Your task to perform on an android device: Open Chrome and go to settings Image 0: 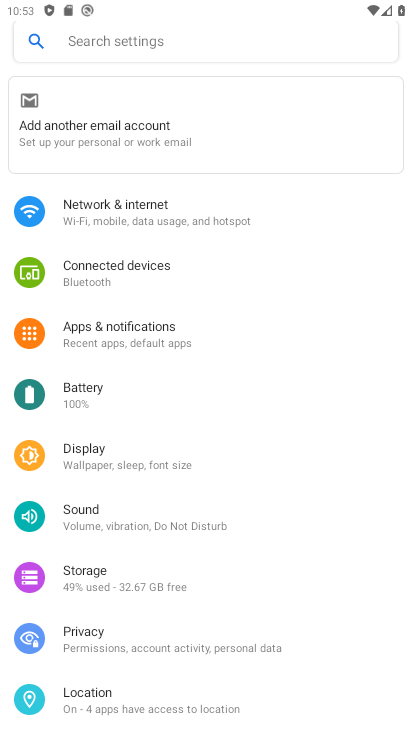
Step 0: press home button
Your task to perform on an android device: Open Chrome and go to settings Image 1: 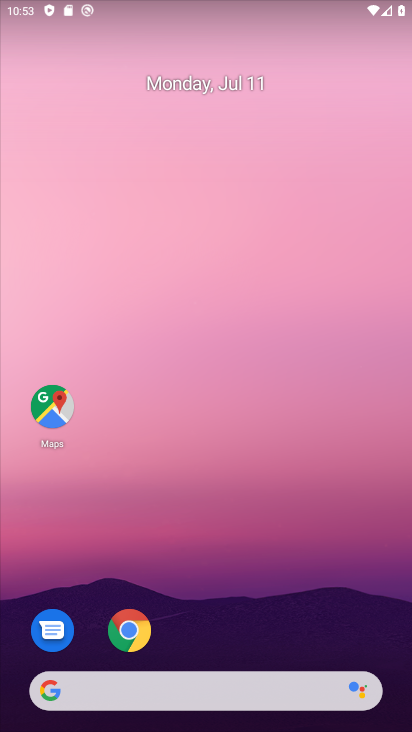
Step 1: click (126, 630)
Your task to perform on an android device: Open Chrome and go to settings Image 2: 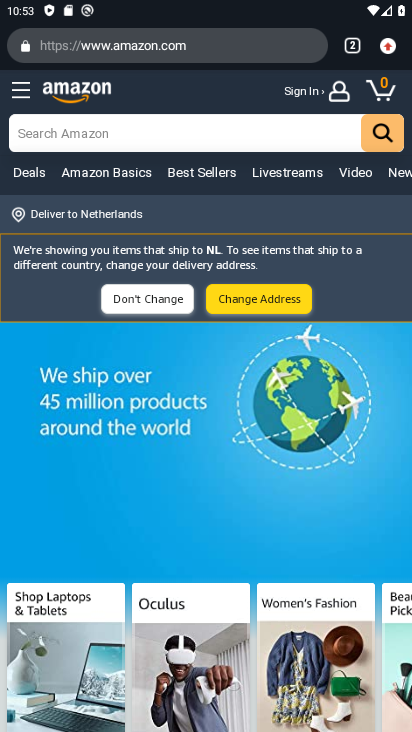
Step 2: click (392, 54)
Your task to perform on an android device: Open Chrome and go to settings Image 3: 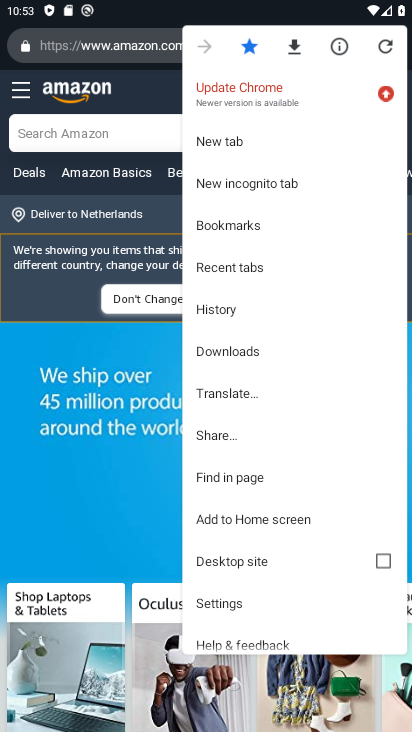
Step 3: click (294, 609)
Your task to perform on an android device: Open Chrome and go to settings Image 4: 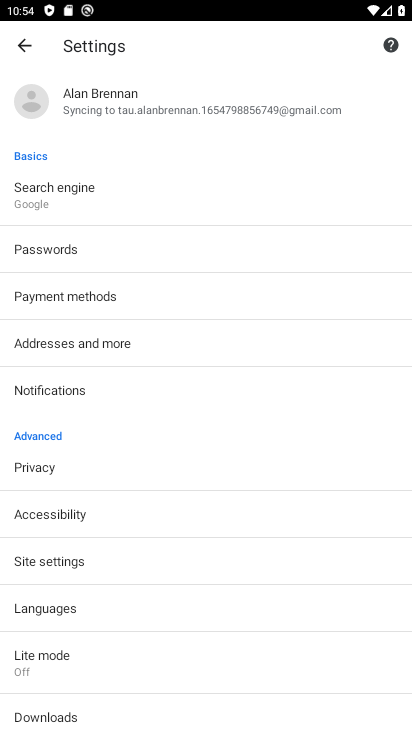
Step 4: task complete